Your task to perform on an android device: Open Youtube and go to the subscriptions tab Image 0: 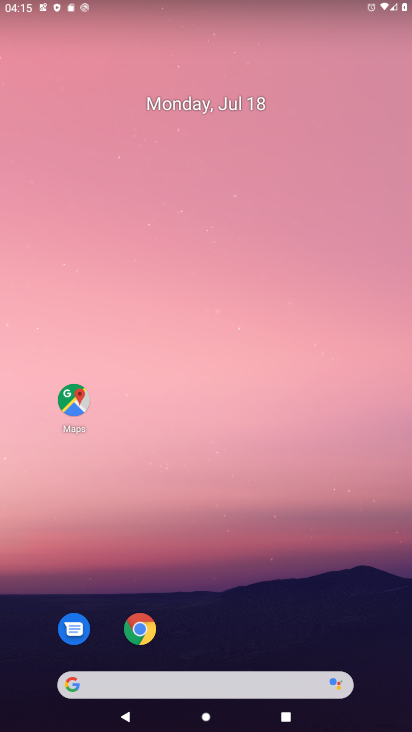
Step 0: drag from (357, 689) to (288, 128)
Your task to perform on an android device: Open Youtube and go to the subscriptions tab Image 1: 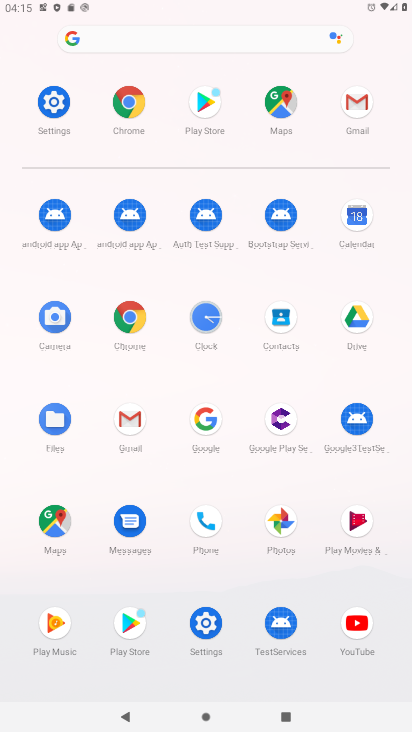
Step 1: click (366, 637)
Your task to perform on an android device: Open Youtube and go to the subscriptions tab Image 2: 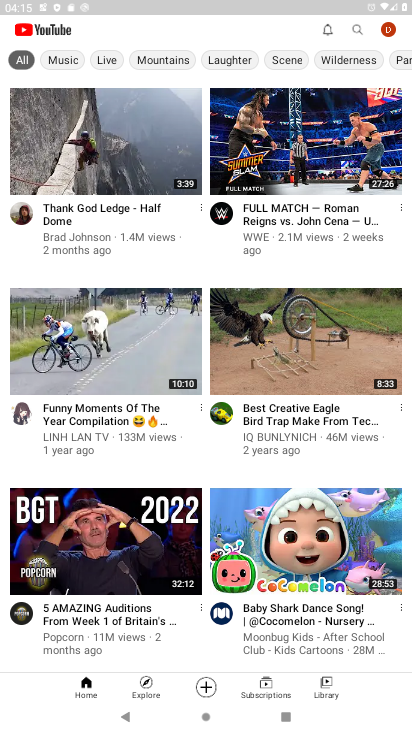
Step 2: click (256, 686)
Your task to perform on an android device: Open Youtube and go to the subscriptions tab Image 3: 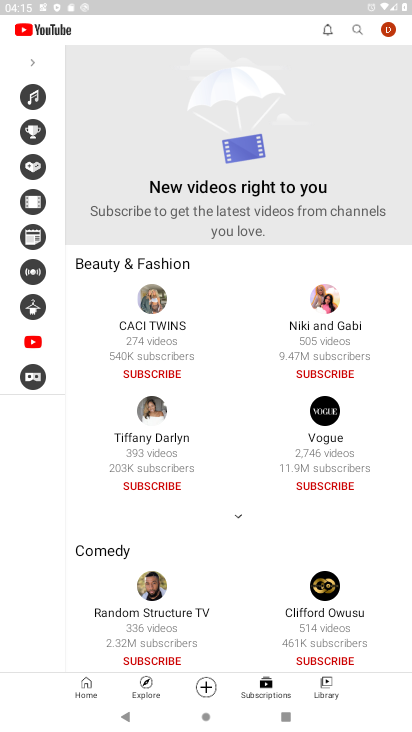
Step 3: task complete